Your task to perform on an android device: Play the last video I watched on Youtube Image 0: 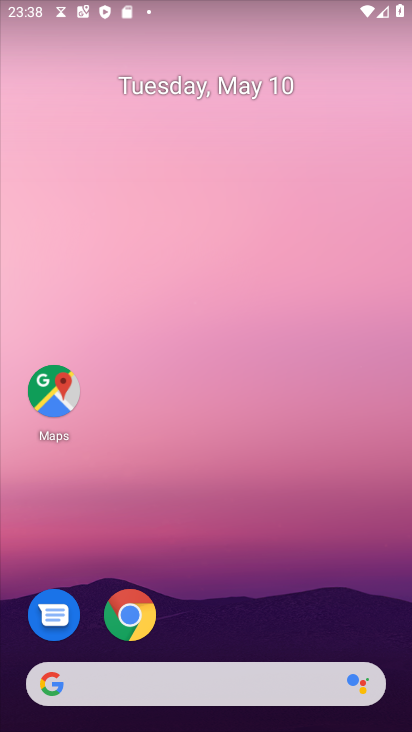
Step 0: drag from (256, 551) to (285, 84)
Your task to perform on an android device: Play the last video I watched on Youtube Image 1: 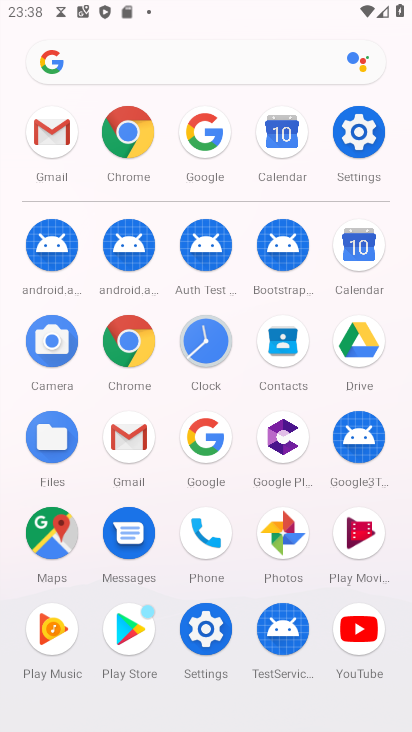
Step 1: click (359, 629)
Your task to perform on an android device: Play the last video I watched on Youtube Image 2: 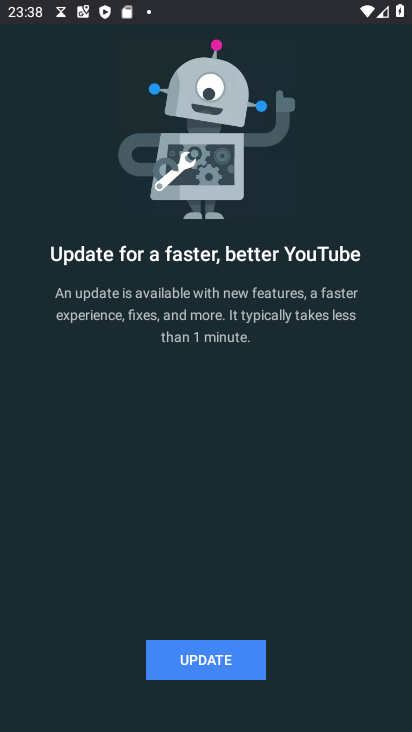
Step 2: click (228, 653)
Your task to perform on an android device: Play the last video I watched on Youtube Image 3: 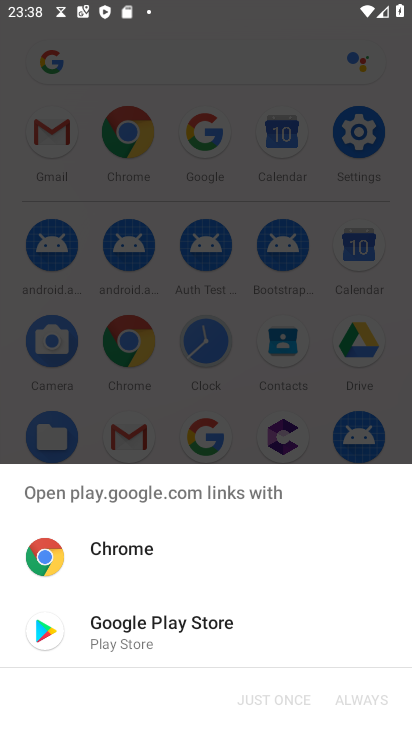
Step 3: click (153, 624)
Your task to perform on an android device: Play the last video I watched on Youtube Image 4: 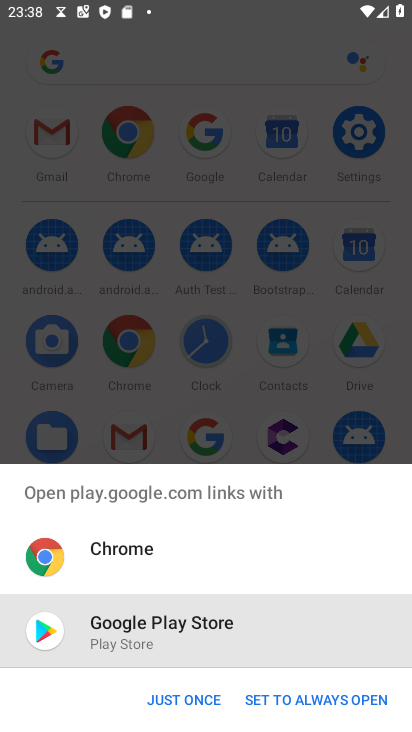
Step 4: click (180, 701)
Your task to perform on an android device: Play the last video I watched on Youtube Image 5: 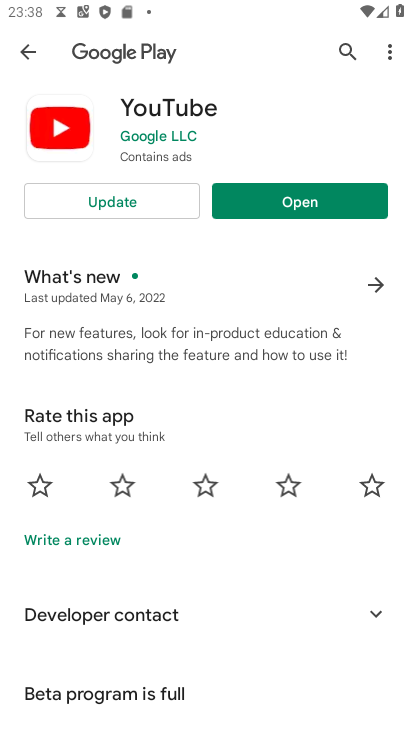
Step 5: click (136, 199)
Your task to perform on an android device: Play the last video I watched on Youtube Image 6: 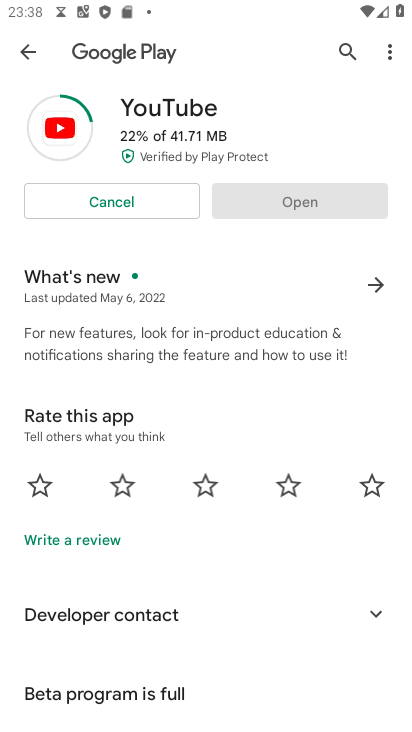
Step 6: click (136, 199)
Your task to perform on an android device: Play the last video I watched on Youtube Image 7: 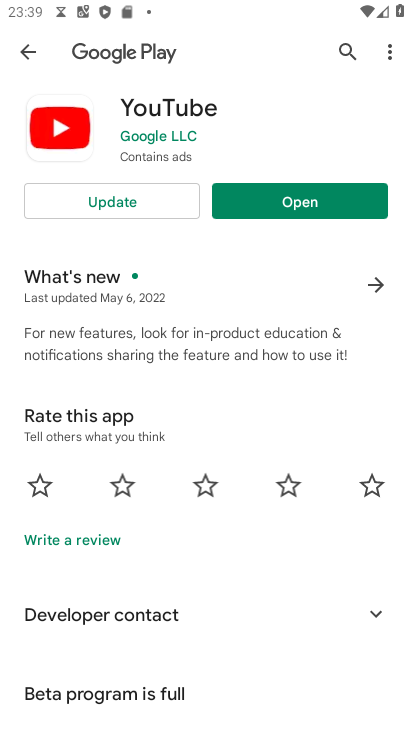
Step 7: click (179, 203)
Your task to perform on an android device: Play the last video I watched on Youtube Image 8: 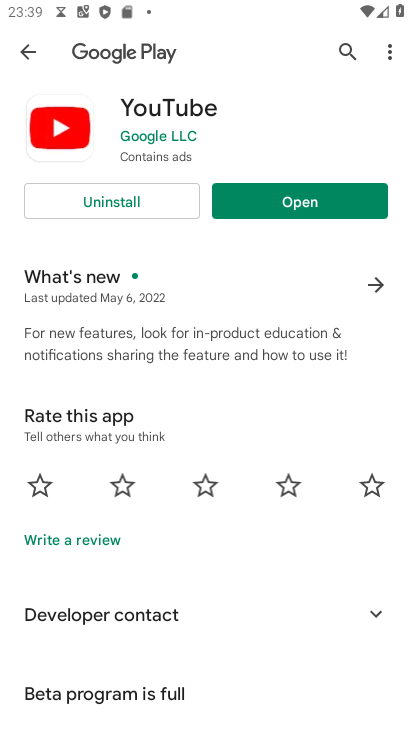
Step 8: click (308, 191)
Your task to perform on an android device: Play the last video I watched on Youtube Image 9: 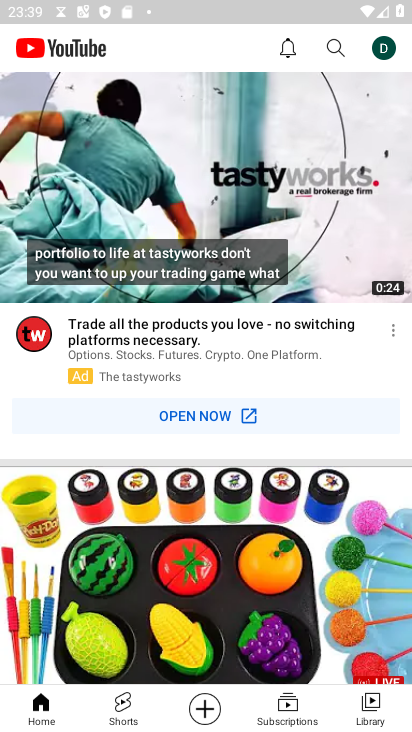
Step 9: click (372, 705)
Your task to perform on an android device: Play the last video I watched on Youtube Image 10: 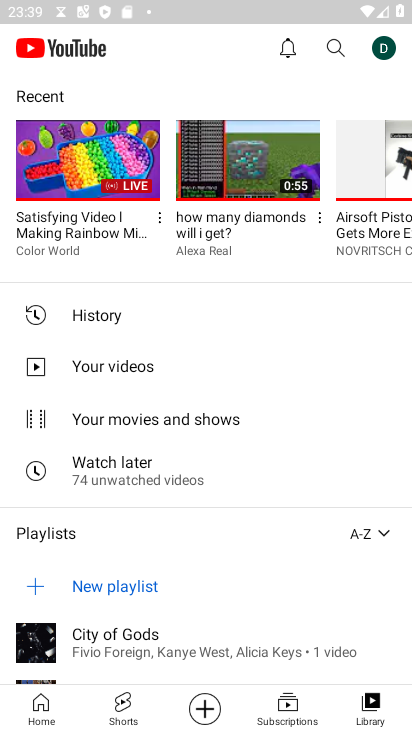
Step 10: click (81, 178)
Your task to perform on an android device: Play the last video I watched on Youtube Image 11: 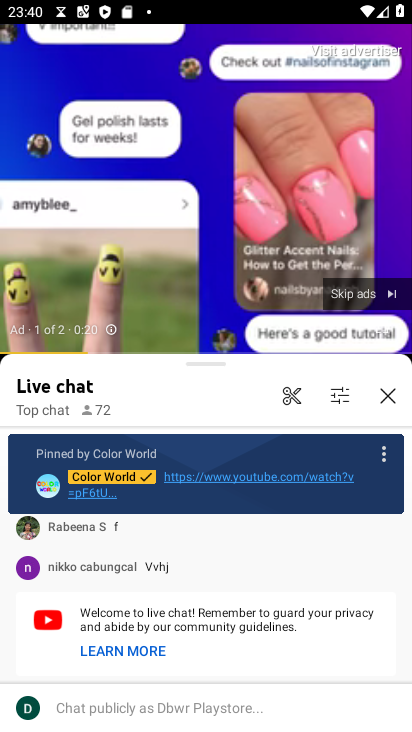
Step 11: task complete